Your task to perform on an android device: Search for seafood restaurants on Google Maps Image 0: 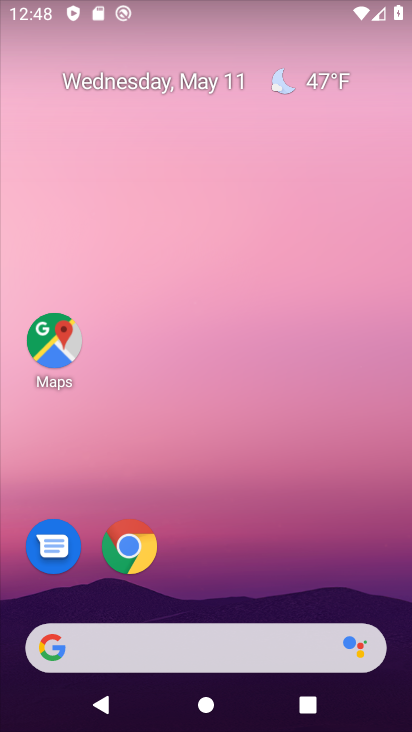
Step 0: click (46, 349)
Your task to perform on an android device: Search for seafood restaurants on Google Maps Image 1: 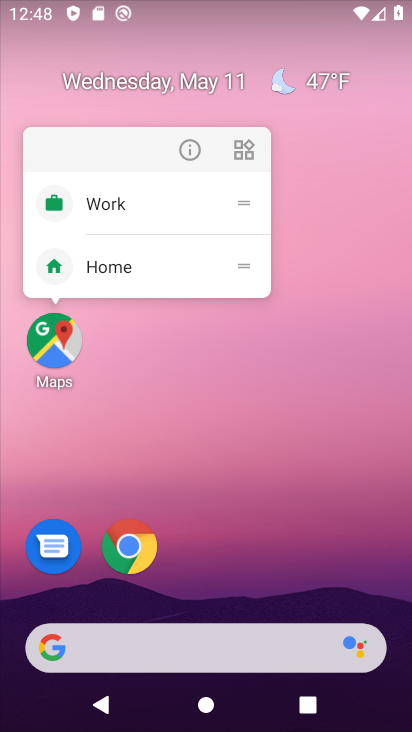
Step 1: click (46, 349)
Your task to perform on an android device: Search for seafood restaurants on Google Maps Image 2: 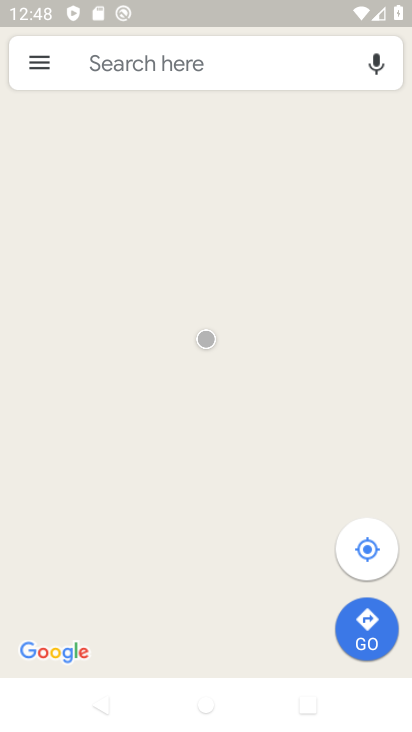
Step 2: click (176, 87)
Your task to perform on an android device: Search for seafood restaurants on Google Maps Image 3: 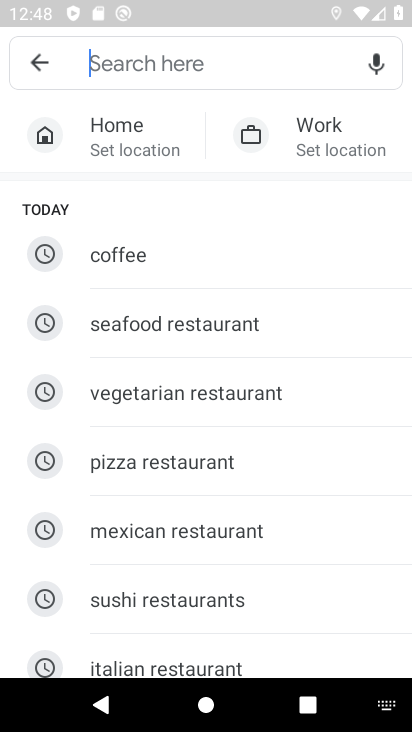
Step 3: type "seafood restaurants"
Your task to perform on an android device: Search for seafood restaurants on Google Maps Image 4: 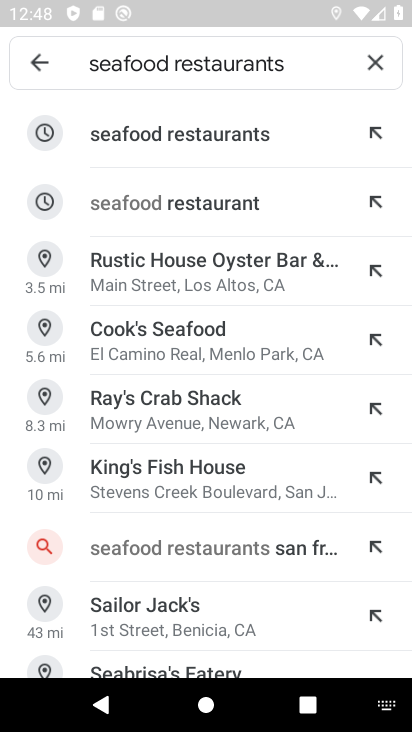
Step 4: click (231, 126)
Your task to perform on an android device: Search for seafood restaurants on Google Maps Image 5: 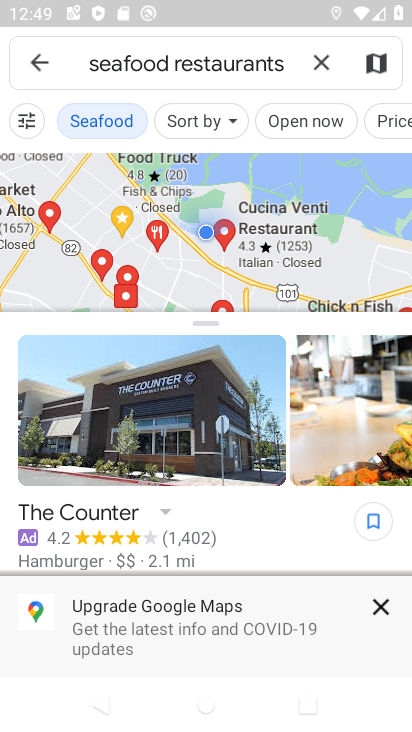
Step 5: click (375, 606)
Your task to perform on an android device: Search for seafood restaurants on Google Maps Image 6: 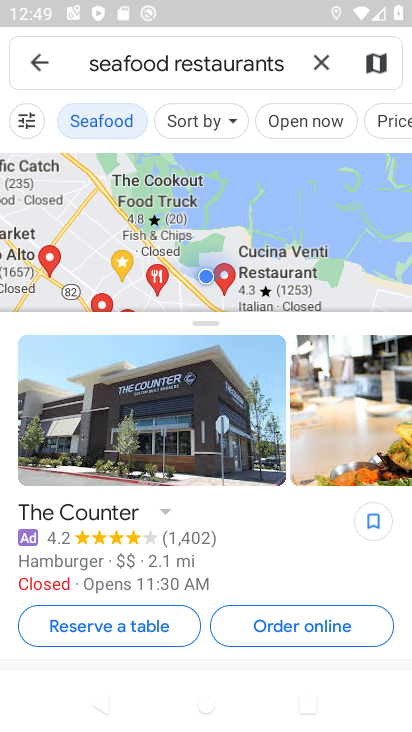
Step 6: task complete